Your task to perform on an android device: set the stopwatch Image 0: 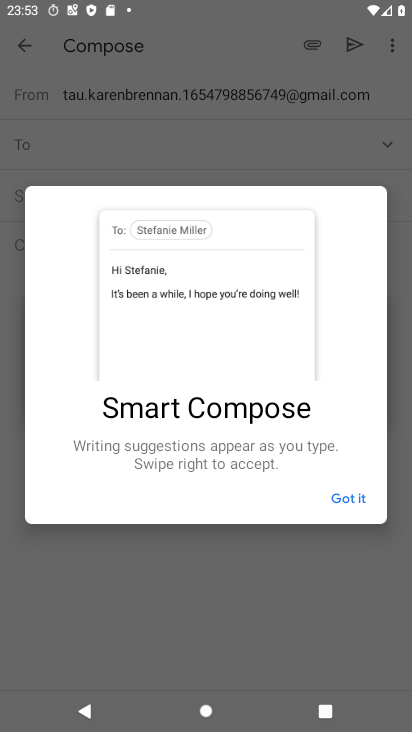
Step 0: drag from (213, 673) to (219, 173)
Your task to perform on an android device: set the stopwatch Image 1: 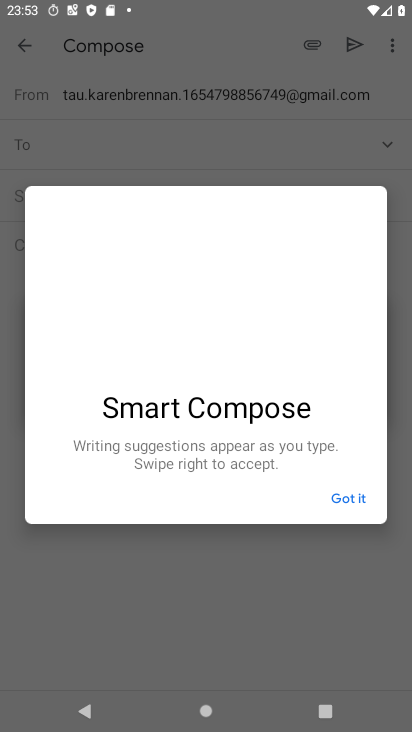
Step 1: press home button
Your task to perform on an android device: set the stopwatch Image 2: 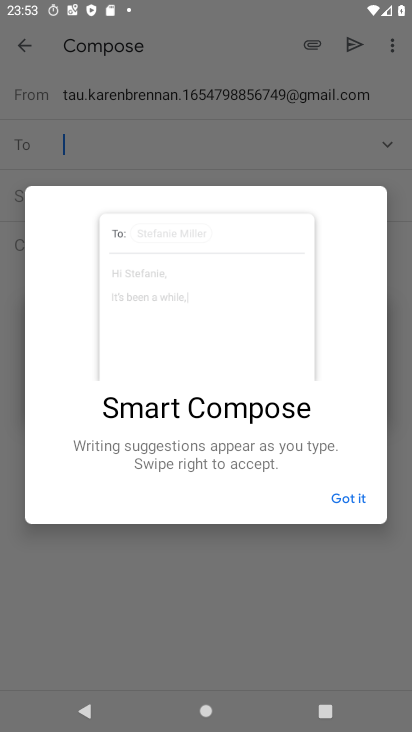
Step 2: click (350, 499)
Your task to perform on an android device: set the stopwatch Image 3: 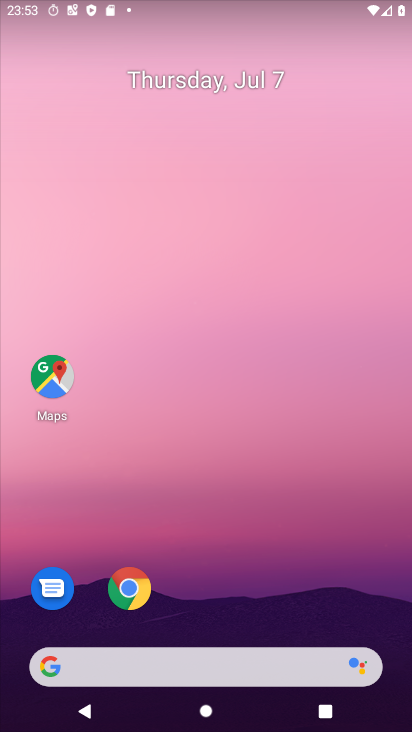
Step 3: drag from (188, 621) to (243, 172)
Your task to perform on an android device: set the stopwatch Image 4: 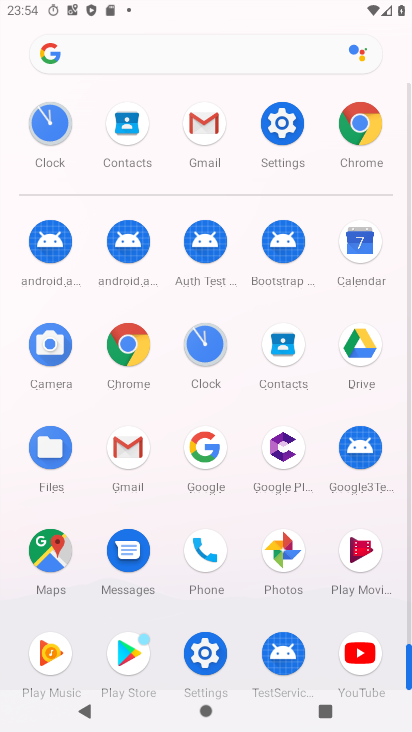
Step 4: click (191, 348)
Your task to perform on an android device: set the stopwatch Image 5: 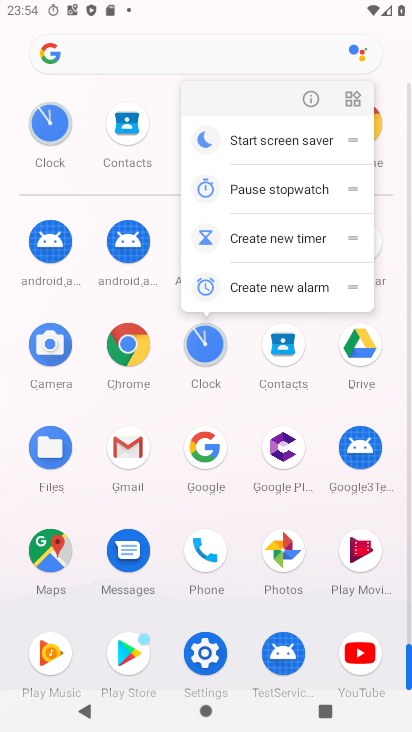
Step 5: click (303, 114)
Your task to perform on an android device: set the stopwatch Image 6: 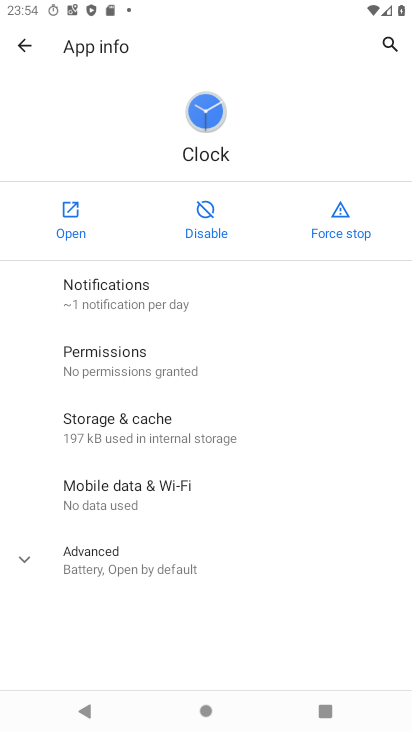
Step 6: click (80, 213)
Your task to perform on an android device: set the stopwatch Image 7: 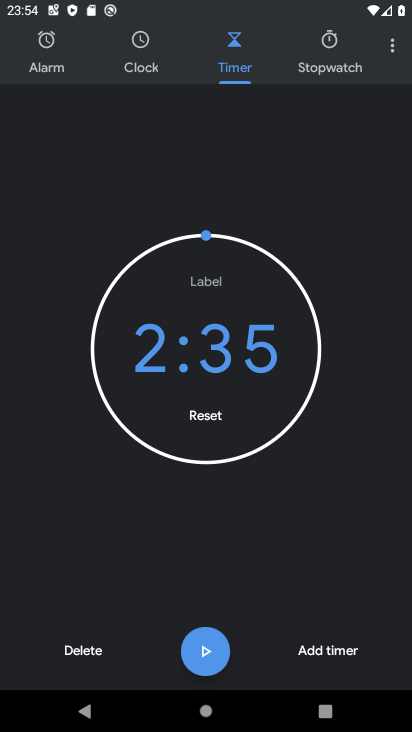
Step 7: click (330, 54)
Your task to perform on an android device: set the stopwatch Image 8: 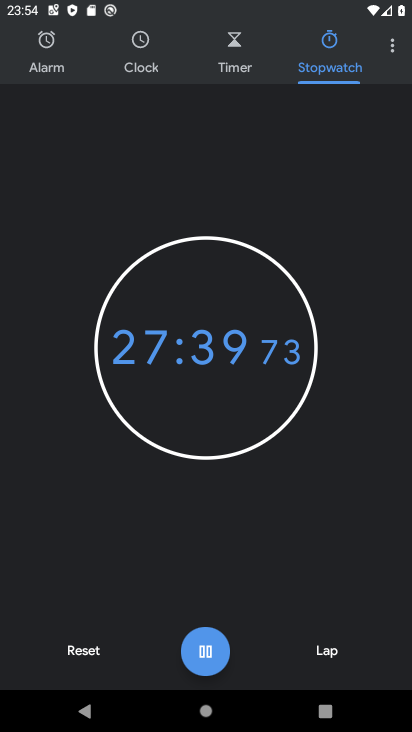
Step 8: drag from (206, 459) to (247, 351)
Your task to perform on an android device: set the stopwatch Image 9: 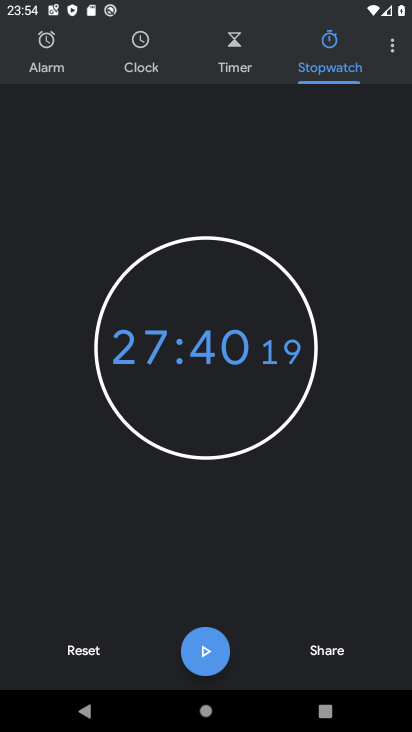
Step 9: click (100, 650)
Your task to perform on an android device: set the stopwatch Image 10: 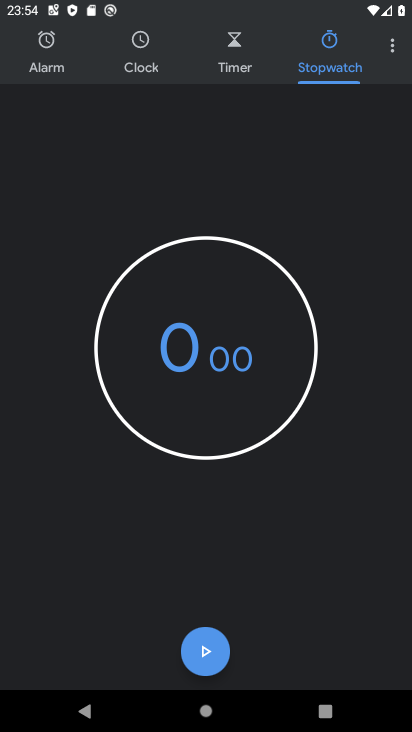
Step 10: click (208, 667)
Your task to perform on an android device: set the stopwatch Image 11: 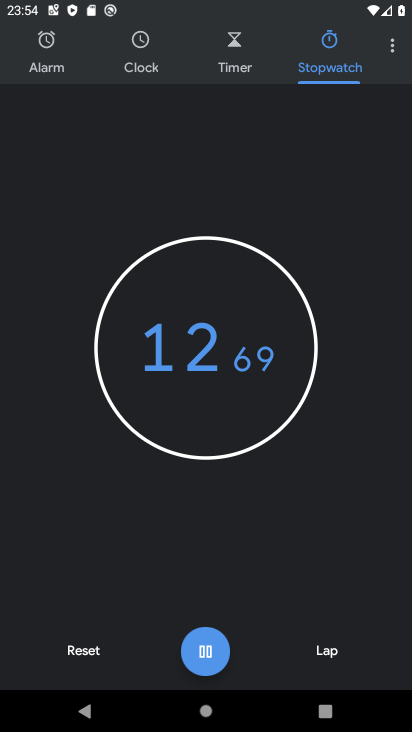
Step 11: click (205, 636)
Your task to perform on an android device: set the stopwatch Image 12: 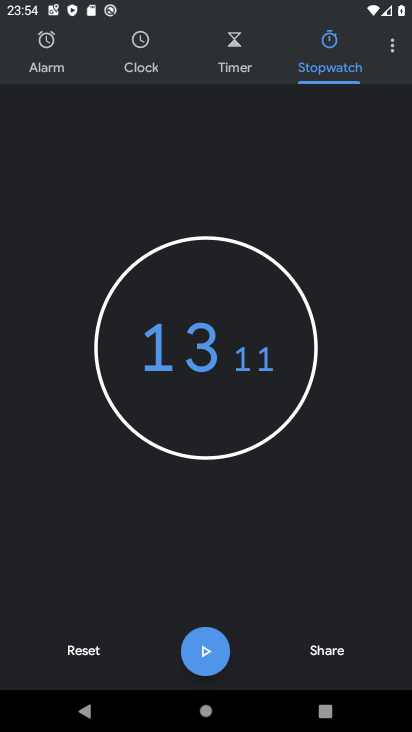
Step 12: click (69, 655)
Your task to perform on an android device: set the stopwatch Image 13: 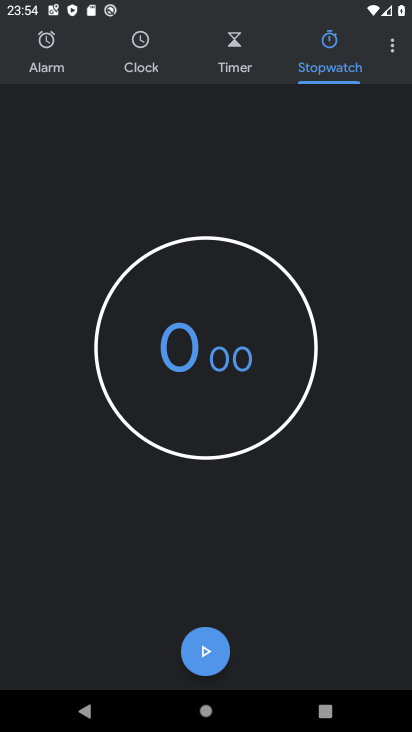
Step 13: click (205, 653)
Your task to perform on an android device: set the stopwatch Image 14: 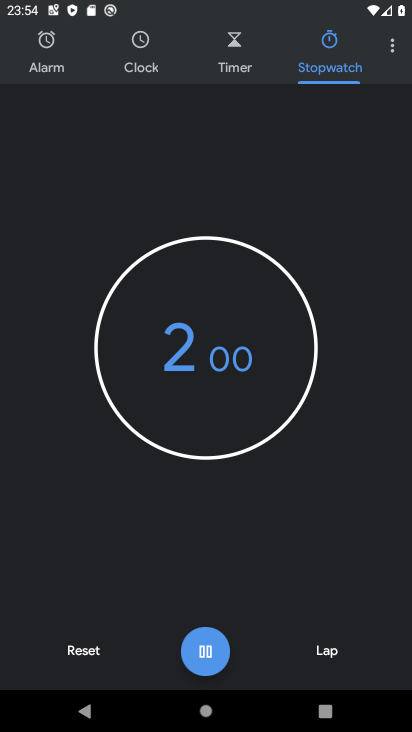
Step 14: task complete